Your task to perform on an android device: toggle pop-ups in chrome Image 0: 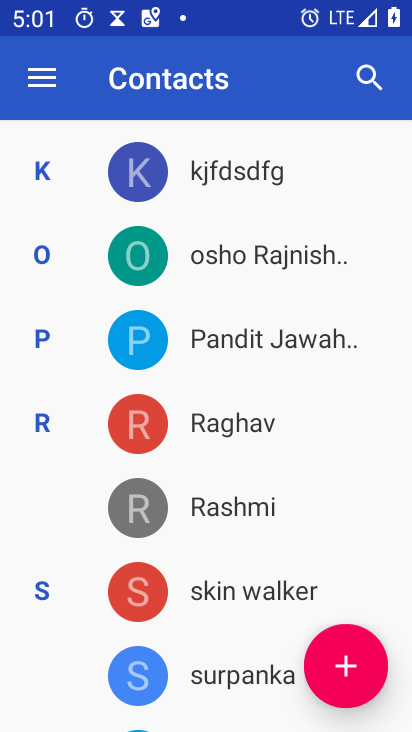
Step 0: press home button
Your task to perform on an android device: toggle pop-ups in chrome Image 1: 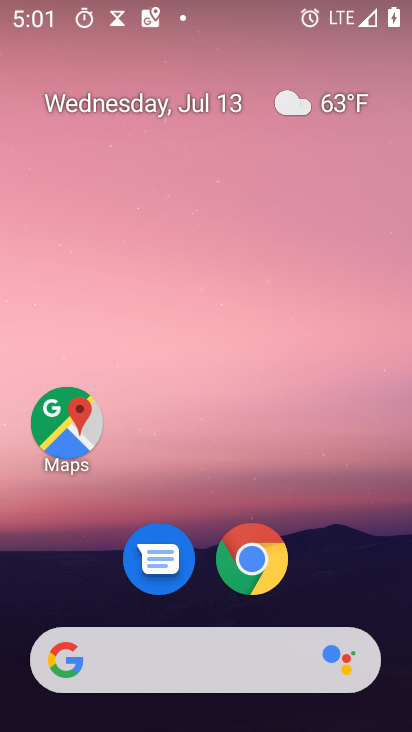
Step 1: click (269, 554)
Your task to perform on an android device: toggle pop-ups in chrome Image 2: 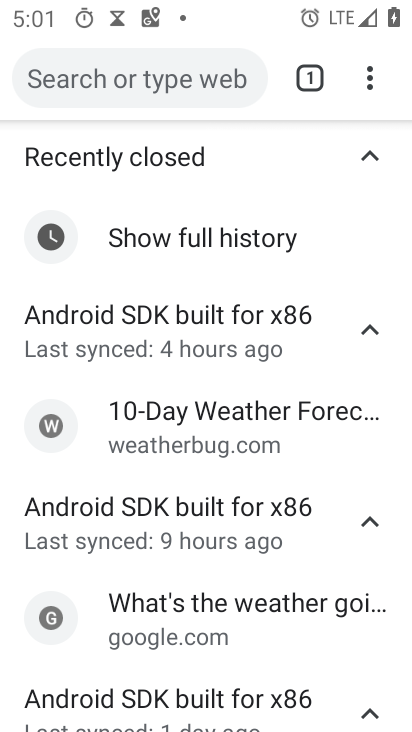
Step 2: click (375, 80)
Your task to perform on an android device: toggle pop-ups in chrome Image 3: 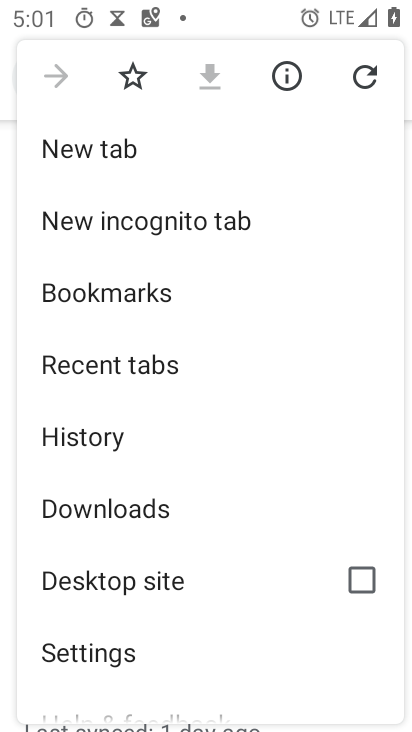
Step 3: drag from (219, 626) to (173, 224)
Your task to perform on an android device: toggle pop-ups in chrome Image 4: 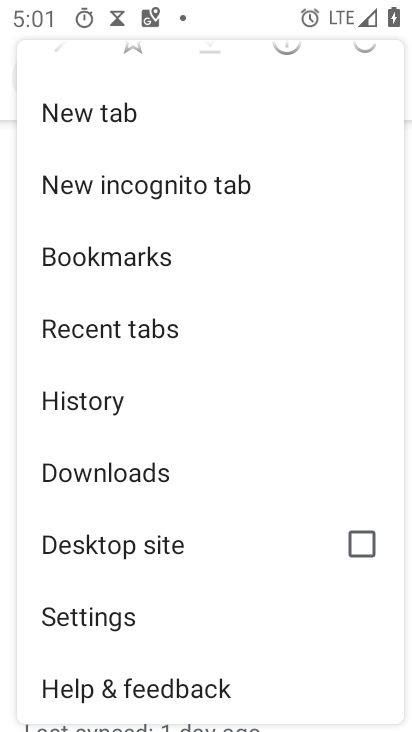
Step 4: click (218, 619)
Your task to perform on an android device: toggle pop-ups in chrome Image 5: 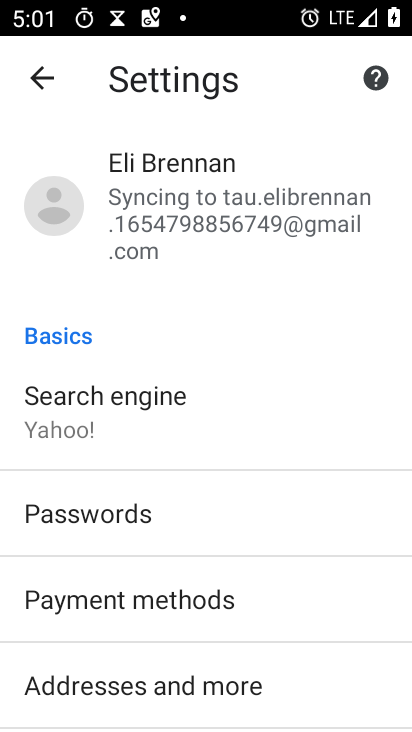
Step 5: drag from (270, 668) to (256, 244)
Your task to perform on an android device: toggle pop-ups in chrome Image 6: 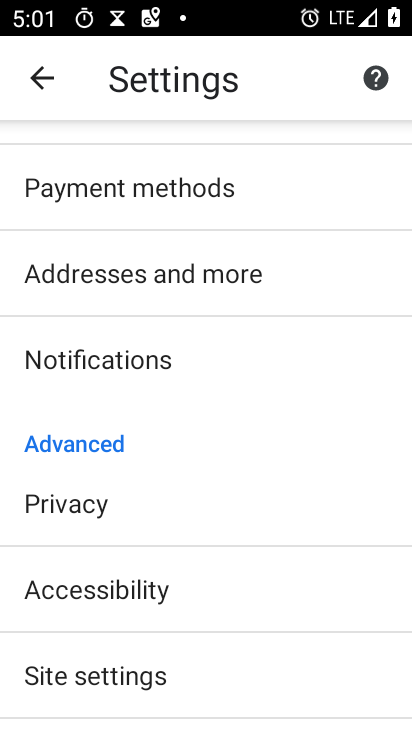
Step 6: click (221, 684)
Your task to perform on an android device: toggle pop-ups in chrome Image 7: 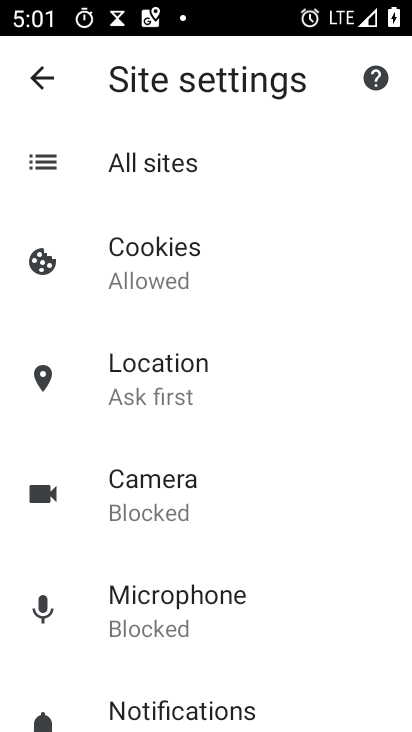
Step 7: drag from (264, 669) to (235, 344)
Your task to perform on an android device: toggle pop-ups in chrome Image 8: 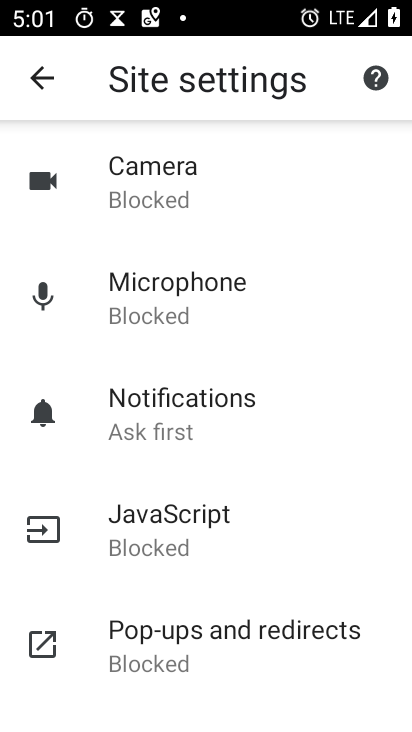
Step 8: click (304, 625)
Your task to perform on an android device: toggle pop-ups in chrome Image 9: 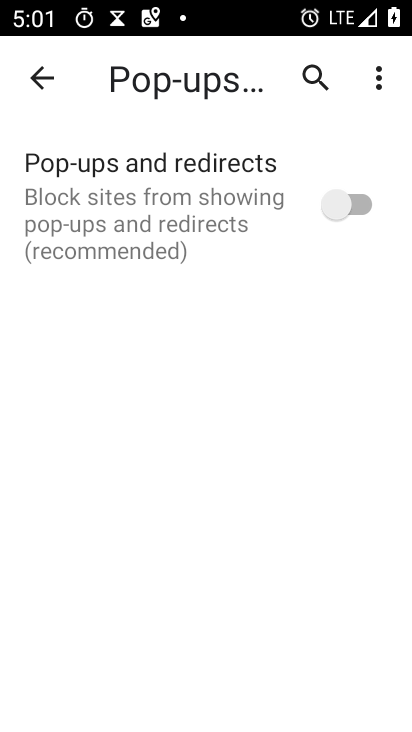
Step 9: click (355, 206)
Your task to perform on an android device: toggle pop-ups in chrome Image 10: 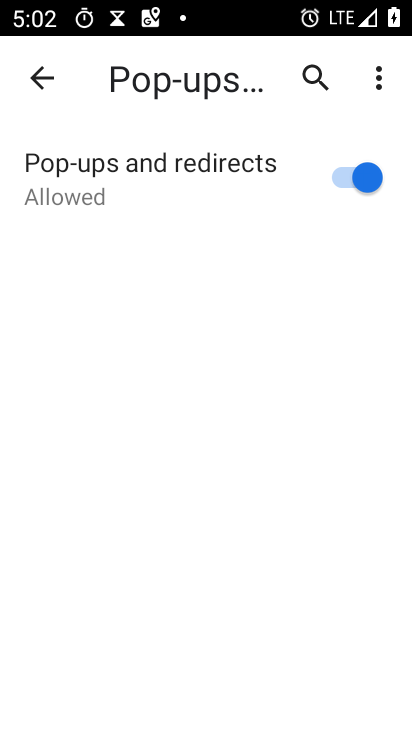
Step 10: task complete